Your task to perform on an android device: turn off notifications settings in the gmail app Image 0: 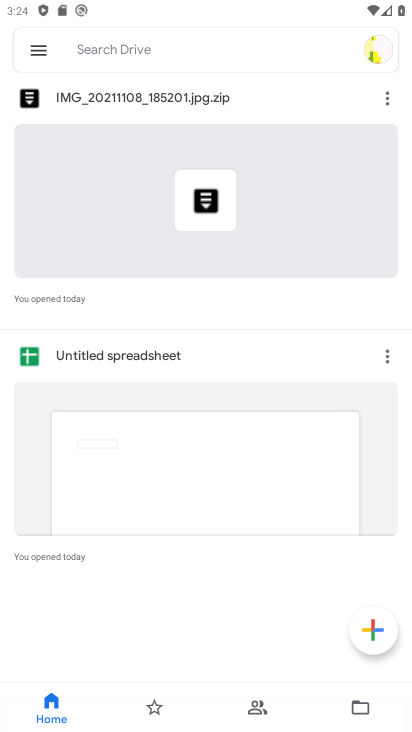
Step 0: press back button
Your task to perform on an android device: turn off notifications settings in the gmail app Image 1: 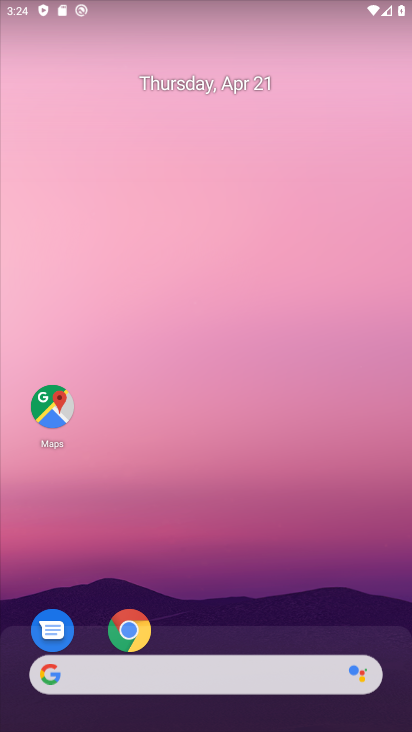
Step 1: drag from (160, 596) to (202, 79)
Your task to perform on an android device: turn off notifications settings in the gmail app Image 2: 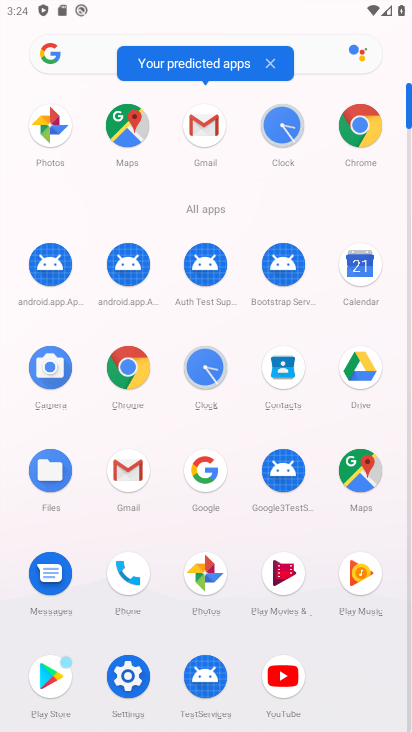
Step 2: click (125, 685)
Your task to perform on an android device: turn off notifications settings in the gmail app Image 3: 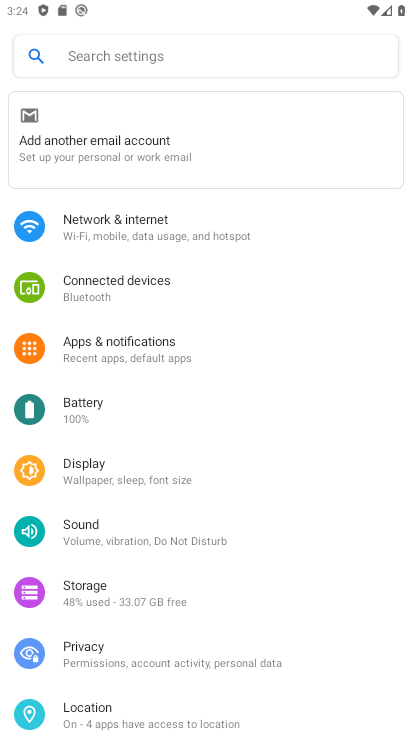
Step 3: click (155, 348)
Your task to perform on an android device: turn off notifications settings in the gmail app Image 4: 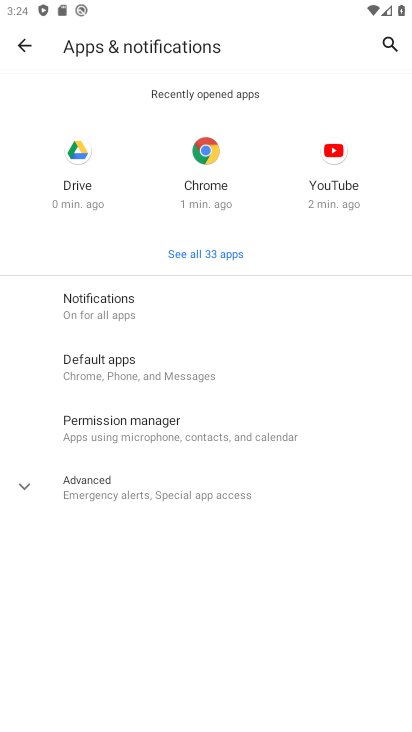
Step 4: click (144, 300)
Your task to perform on an android device: turn off notifications settings in the gmail app Image 5: 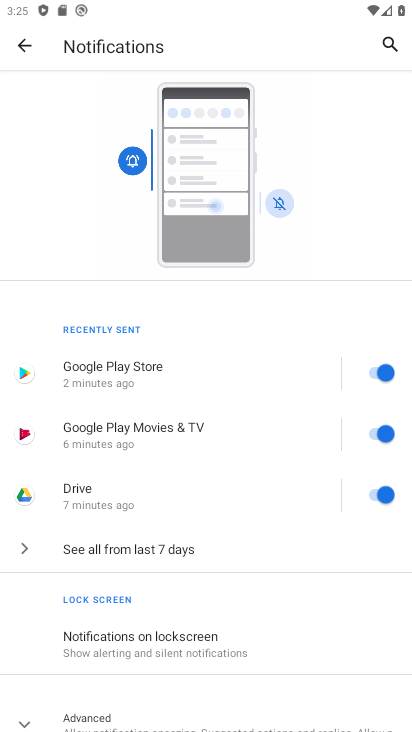
Step 5: task complete